Your task to perform on an android device: uninstall "Booking.com: Hotels and more" Image 0: 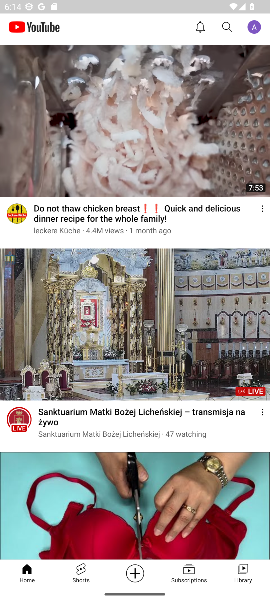
Step 0: press home button
Your task to perform on an android device: uninstall "Booking.com: Hotels and more" Image 1: 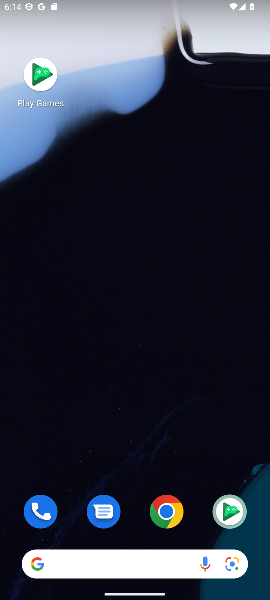
Step 1: drag from (179, 419) to (149, 206)
Your task to perform on an android device: uninstall "Booking.com: Hotels and more" Image 2: 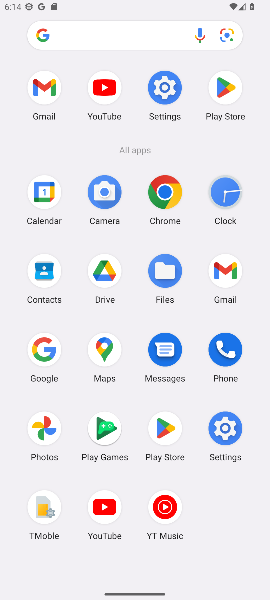
Step 2: click (166, 426)
Your task to perform on an android device: uninstall "Booking.com: Hotels and more" Image 3: 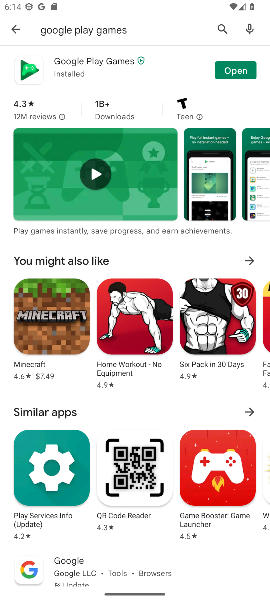
Step 3: click (215, 26)
Your task to perform on an android device: uninstall "Booking.com: Hotels and more" Image 4: 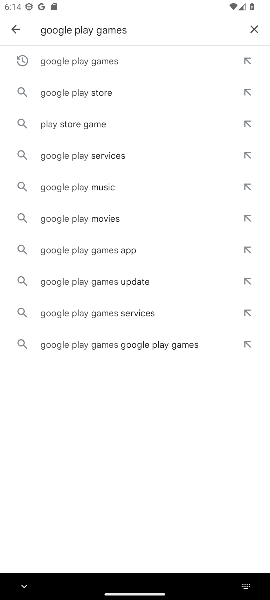
Step 4: click (258, 28)
Your task to perform on an android device: uninstall "Booking.com: Hotels and more" Image 5: 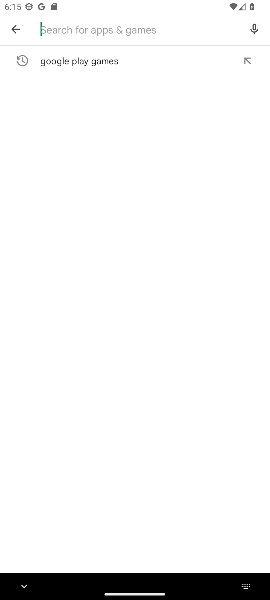
Step 5: type "booking.com"
Your task to perform on an android device: uninstall "Booking.com: Hotels and more" Image 6: 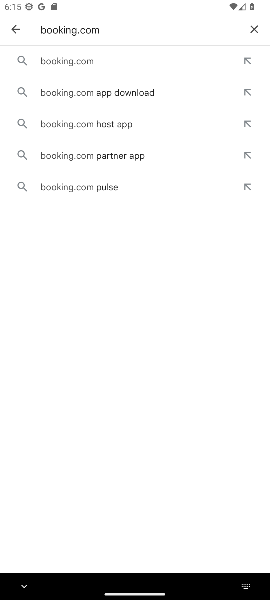
Step 6: click (83, 54)
Your task to perform on an android device: uninstall "Booking.com: Hotels and more" Image 7: 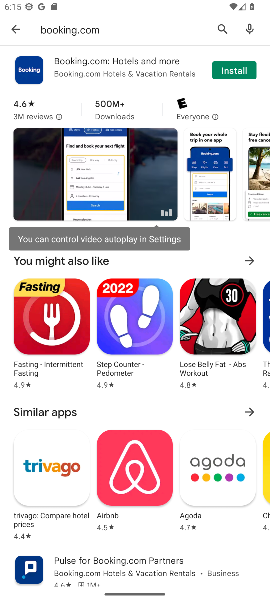
Step 7: task complete